Your task to perform on an android device: What's the news this month? Image 0: 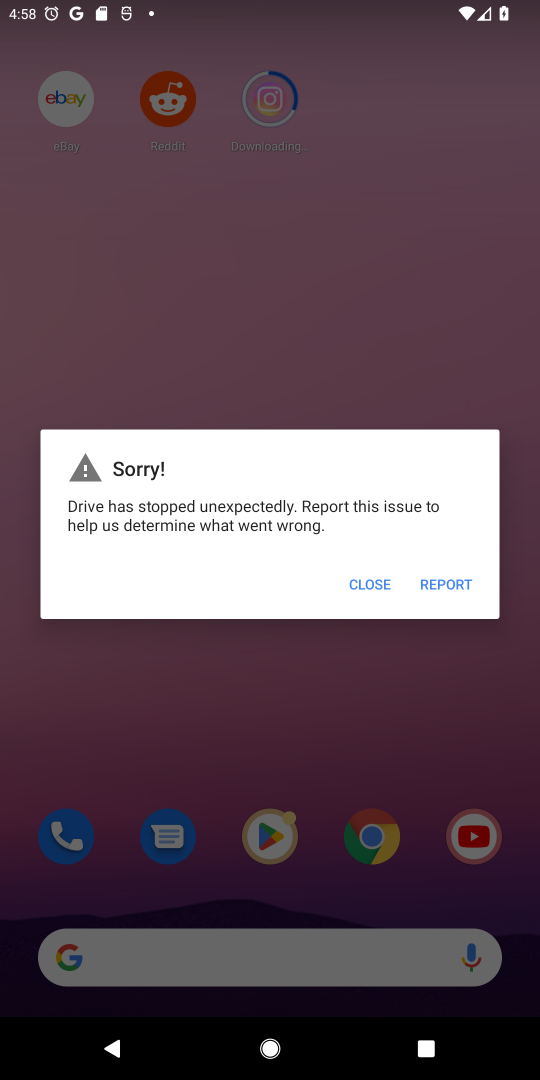
Step 0: click (381, 579)
Your task to perform on an android device: What's the news this month? Image 1: 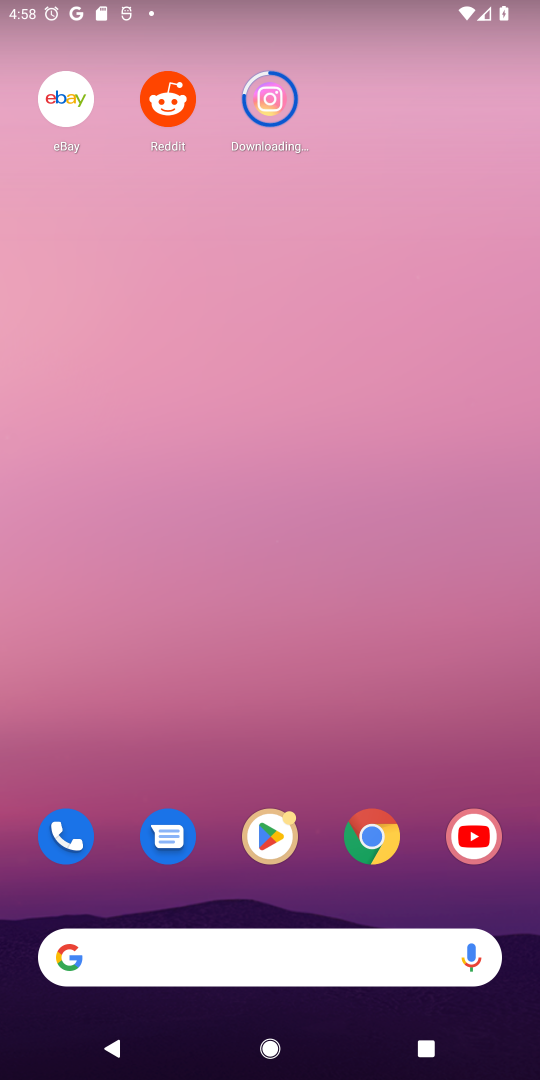
Step 1: click (235, 957)
Your task to perform on an android device: What's the news this month? Image 2: 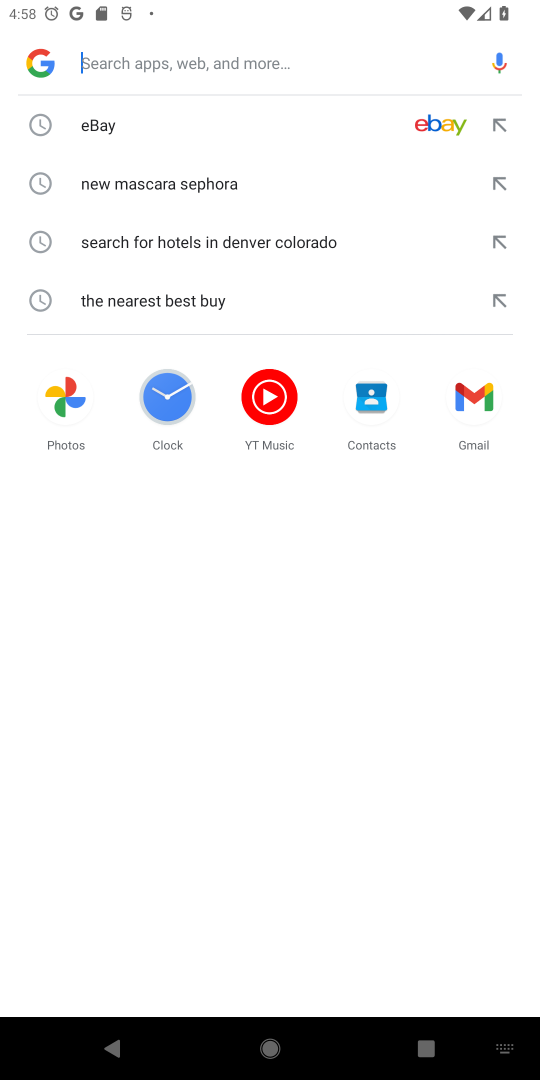
Step 2: type "What's the news this month?"
Your task to perform on an android device: What's the news this month? Image 3: 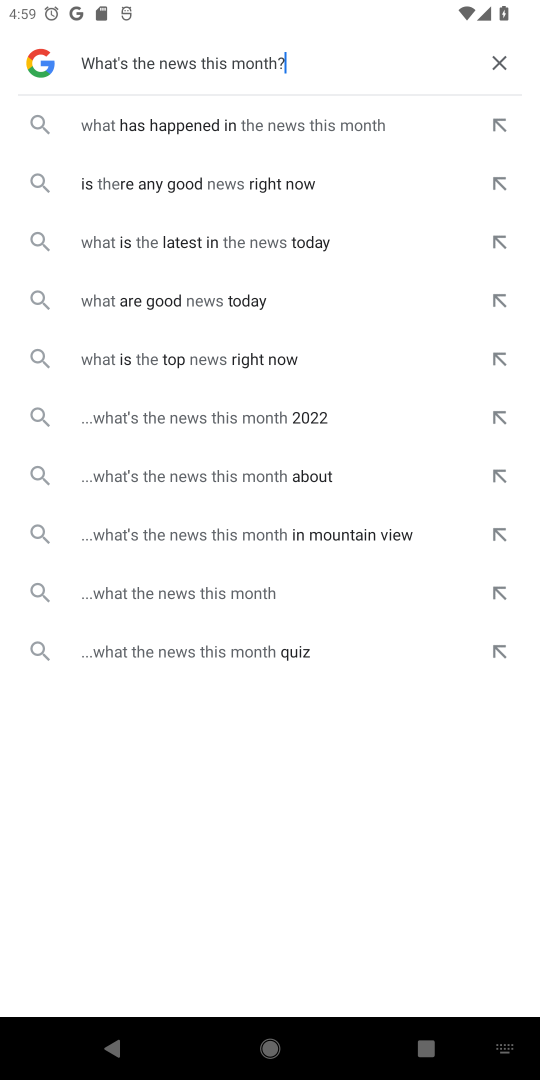
Step 3: click (267, 119)
Your task to perform on an android device: What's the news this month? Image 4: 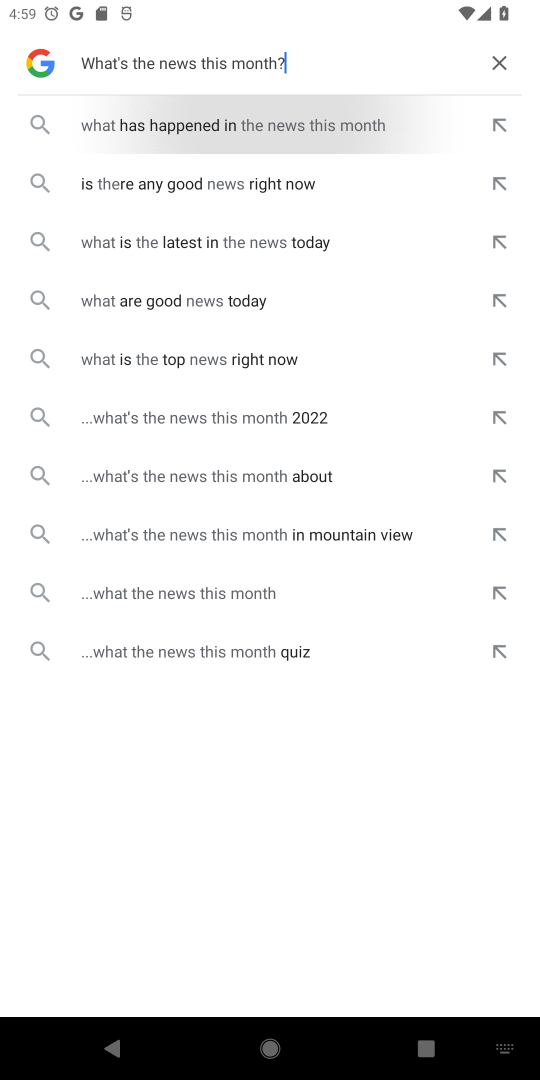
Step 4: task complete